Your task to perform on an android device: find snoozed emails in the gmail app Image 0: 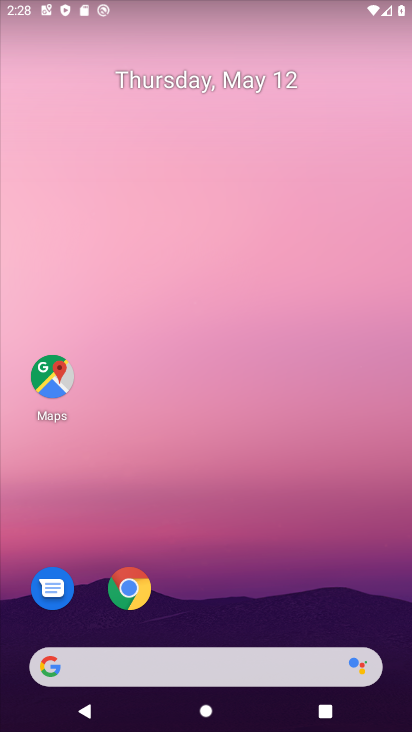
Step 0: drag from (201, 545) to (225, 57)
Your task to perform on an android device: find snoozed emails in the gmail app Image 1: 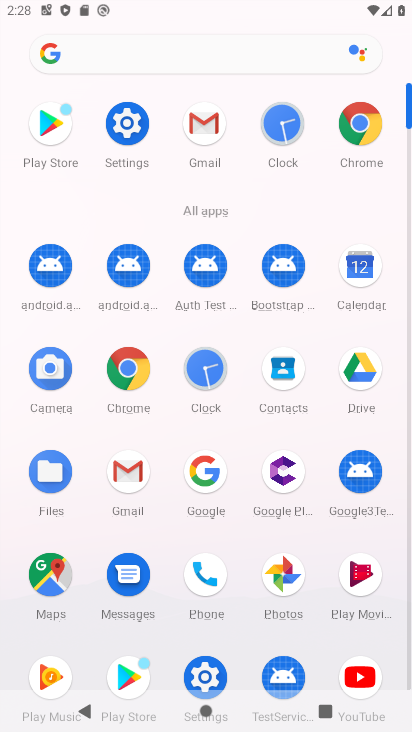
Step 1: click (207, 145)
Your task to perform on an android device: find snoozed emails in the gmail app Image 2: 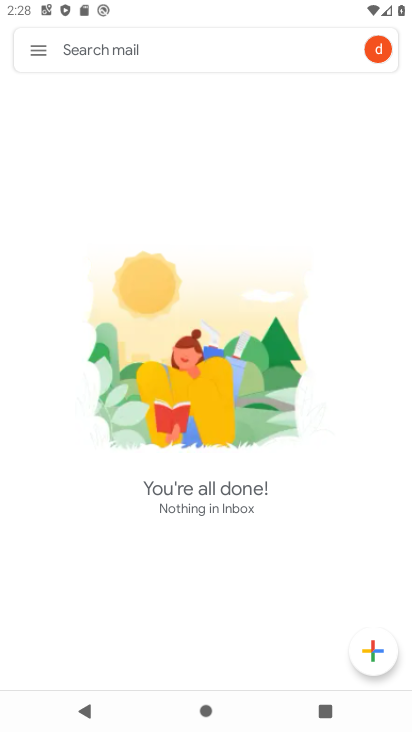
Step 2: click (42, 53)
Your task to perform on an android device: find snoozed emails in the gmail app Image 3: 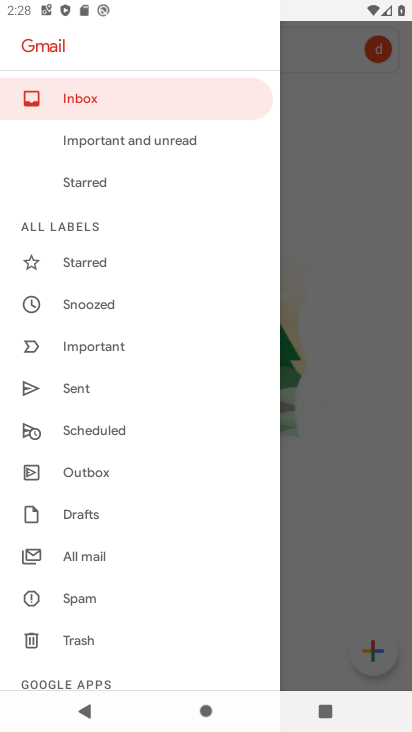
Step 3: click (97, 296)
Your task to perform on an android device: find snoozed emails in the gmail app Image 4: 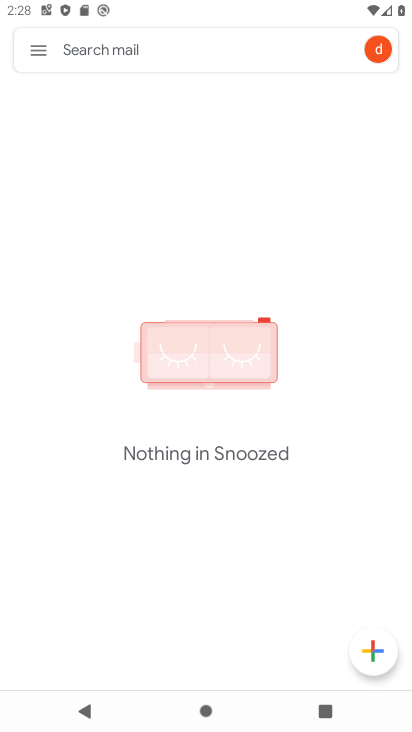
Step 4: task complete